Your task to perform on an android device: turn on improve location accuracy Image 0: 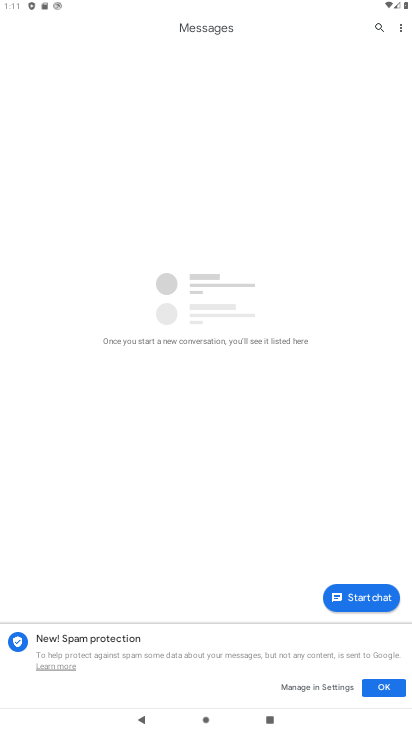
Step 0: press home button
Your task to perform on an android device: turn on improve location accuracy Image 1: 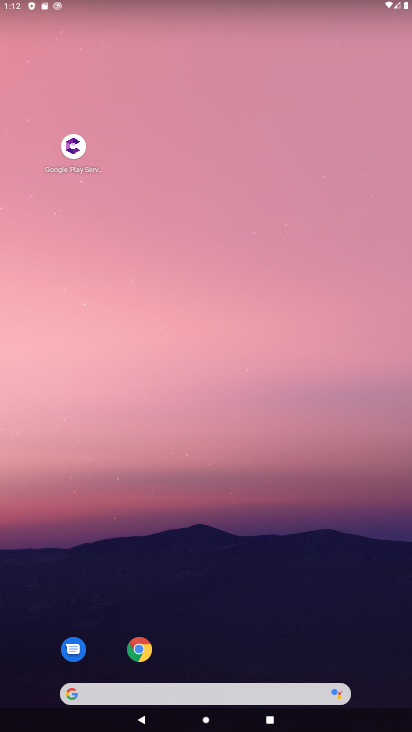
Step 1: drag from (159, 590) to (156, 7)
Your task to perform on an android device: turn on improve location accuracy Image 2: 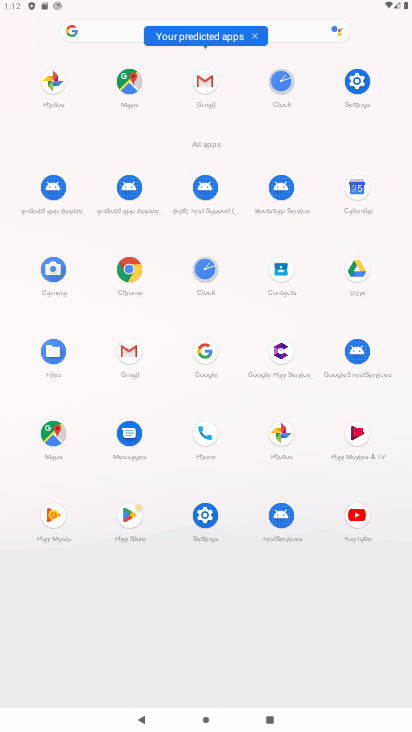
Step 2: click (353, 86)
Your task to perform on an android device: turn on improve location accuracy Image 3: 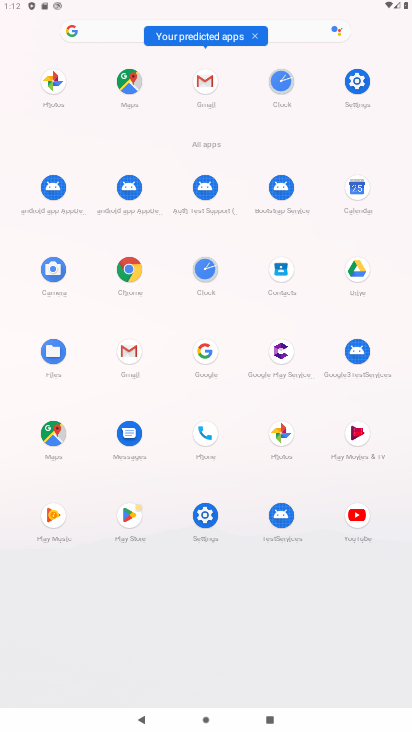
Step 3: click (353, 86)
Your task to perform on an android device: turn on improve location accuracy Image 4: 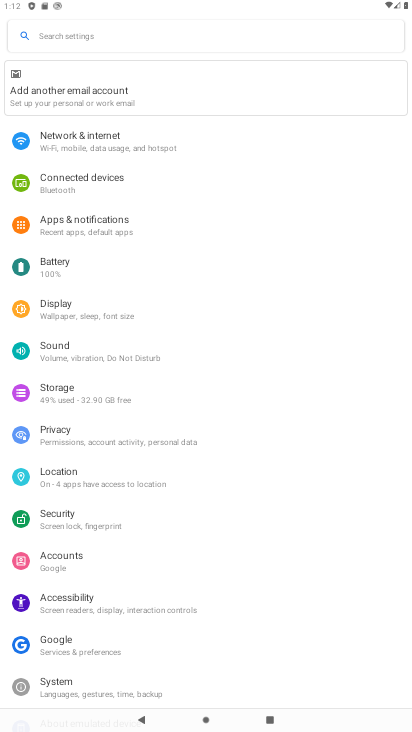
Step 4: click (72, 483)
Your task to perform on an android device: turn on improve location accuracy Image 5: 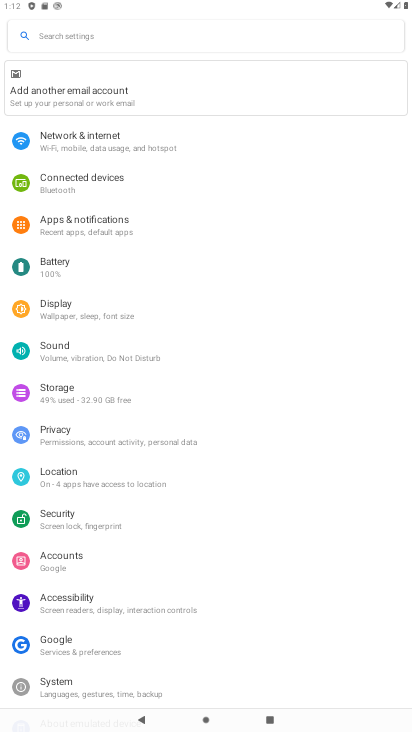
Step 5: click (72, 483)
Your task to perform on an android device: turn on improve location accuracy Image 6: 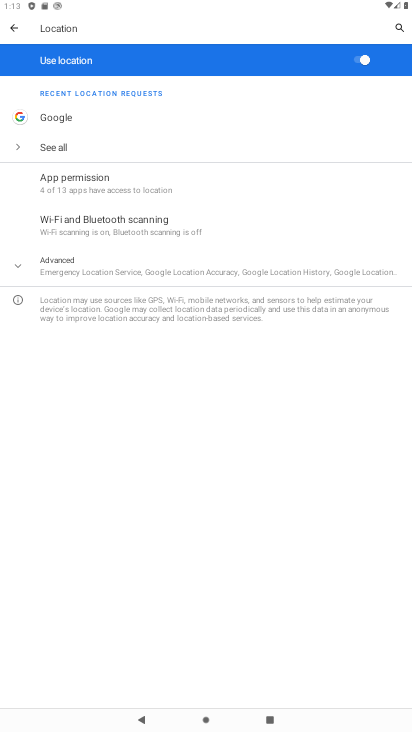
Step 6: click (350, 269)
Your task to perform on an android device: turn on improve location accuracy Image 7: 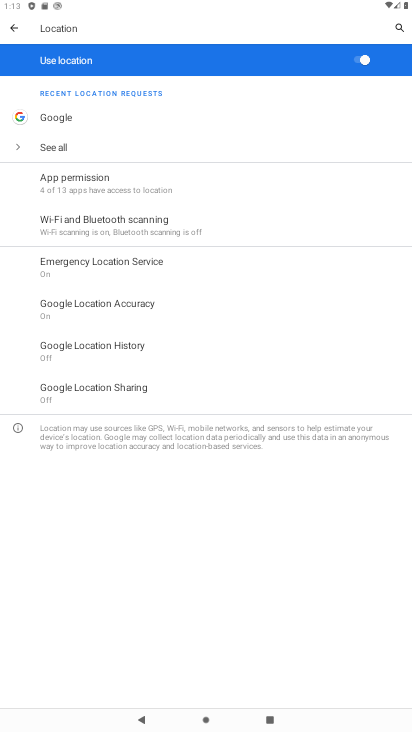
Step 7: click (135, 294)
Your task to perform on an android device: turn on improve location accuracy Image 8: 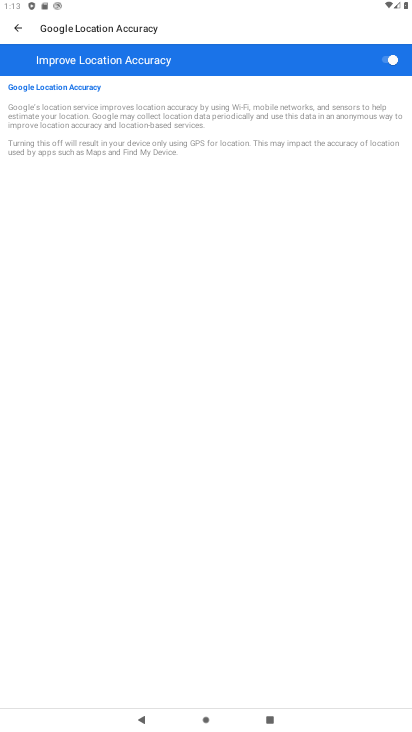
Step 8: task complete